Your task to perform on an android device: Go to wifi settings Image 0: 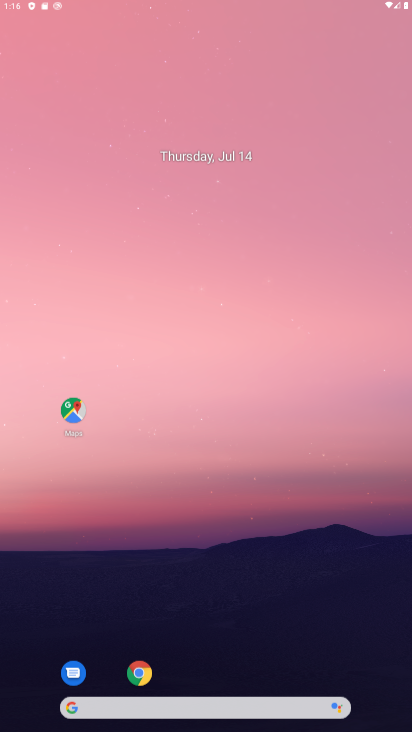
Step 0: drag from (257, 588) to (398, 103)
Your task to perform on an android device: Go to wifi settings Image 1: 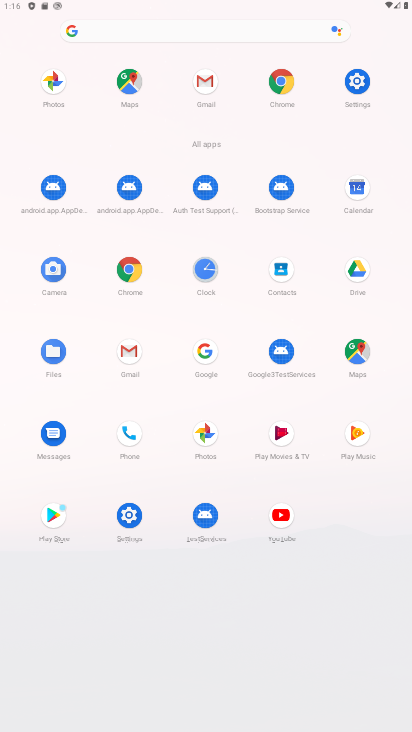
Step 1: click (356, 78)
Your task to perform on an android device: Go to wifi settings Image 2: 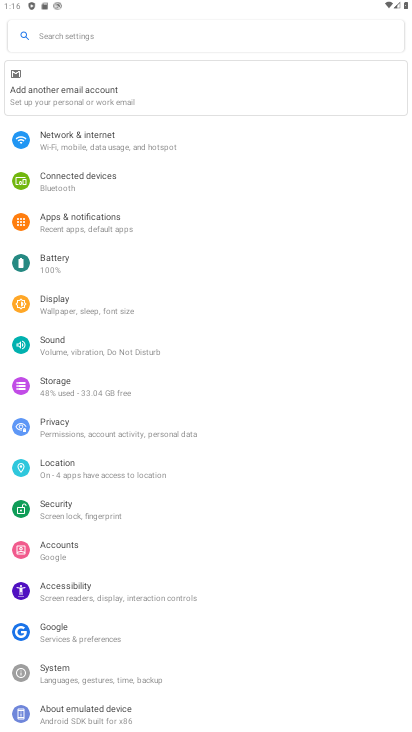
Step 2: click (41, 135)
Your task to perform on an android device: Go to wifi settings Image 3: 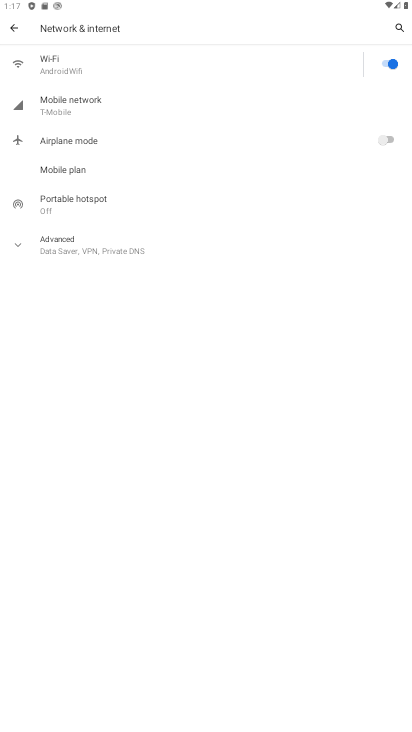
Step 3: click (79, 67)
Your task to perform on an android device: Go to wifi settings Image 4: 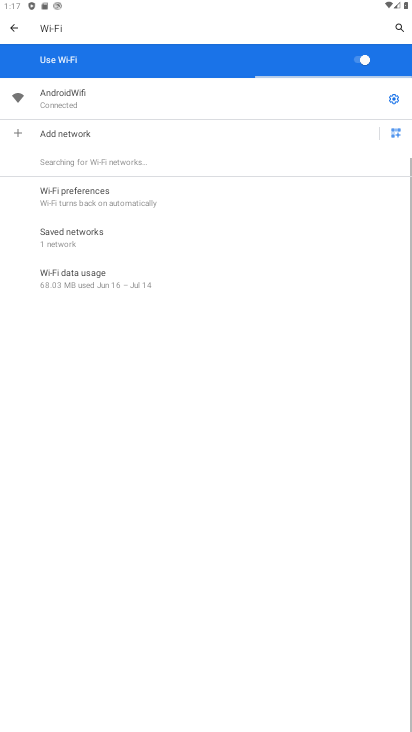
Step 4: task complete